Your task to perform on an android device: all mails in gmail Image 0: 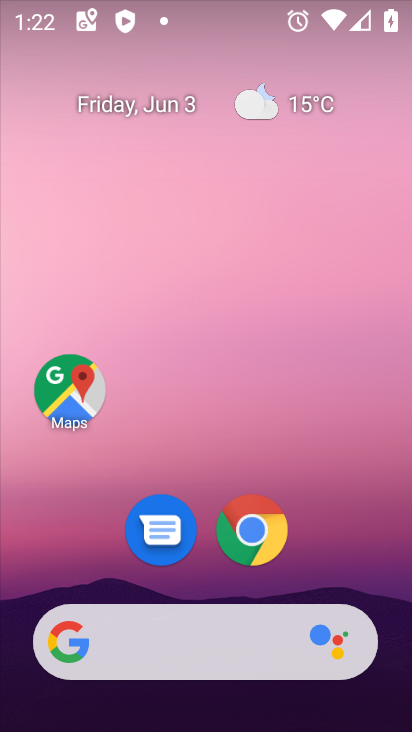
Step 0: drag from (351, 492) to (326, 94)
Your task to perform on an android device: all mails in gmail Image 1: 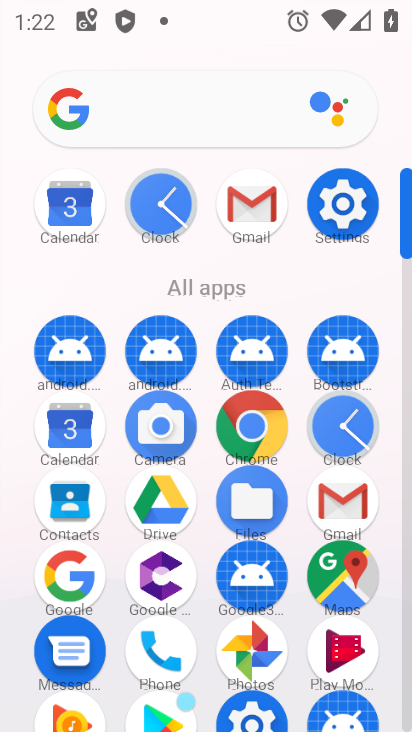
Step 1: click (248, 193)
Your task to perform on an android device: all mails in gmail Image 2: 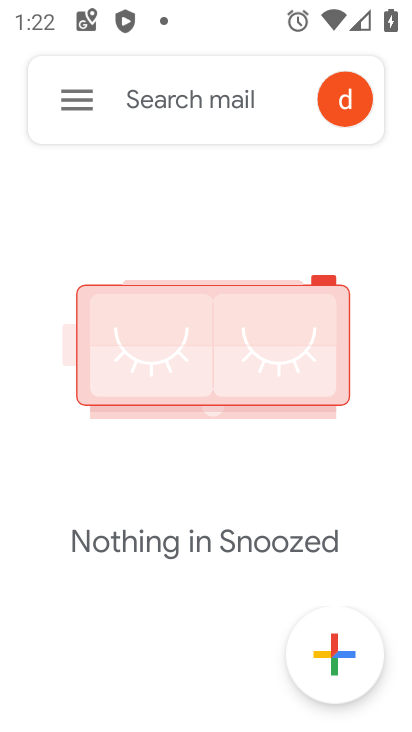
Step 2: click (81, 94)
Your task to perform on an android device: all mails in gmail Image 3: 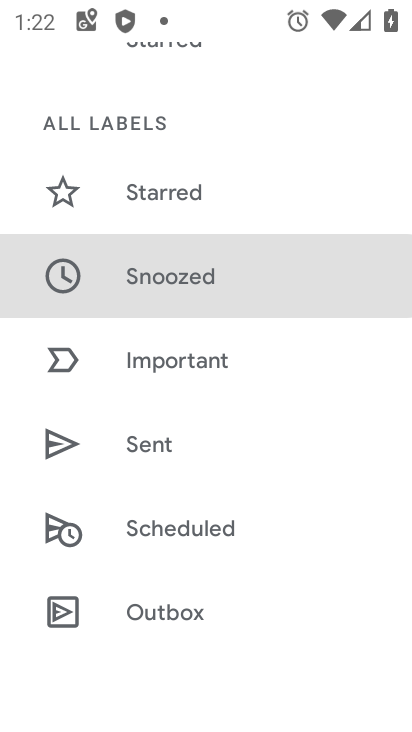
Step 3: drag from (348, 617) to (369, 157)
Your task to perform on an android device: all mails in gmail Image 4: 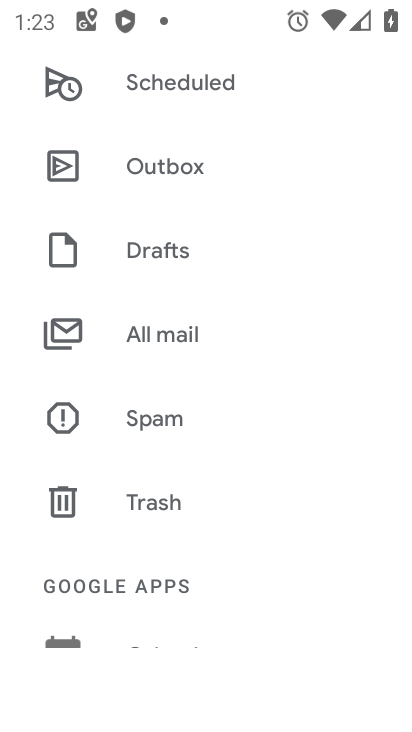
Step 4: click (280, 326)
Your task to perform on an android device: all mails in gmail Image 5: 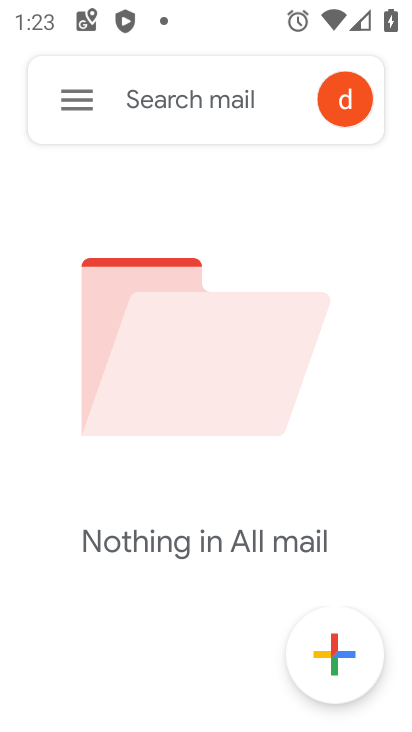
Step 5: task complete